Your task to perform on an android device: change text size in settings app Image 0: 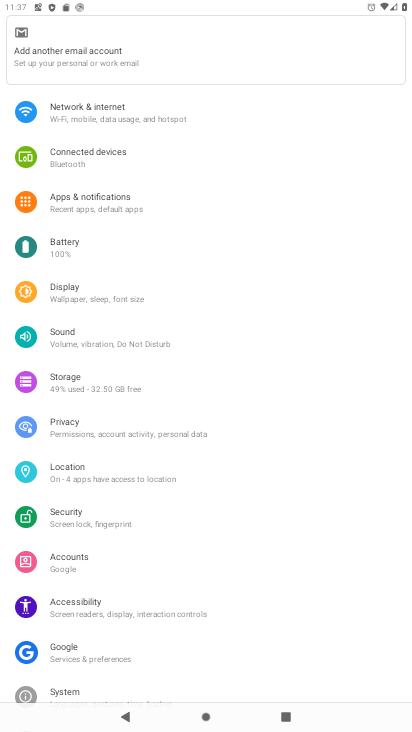
Step 0: press home button
Your task to perform on an android device: change text size in settings app Image 1: 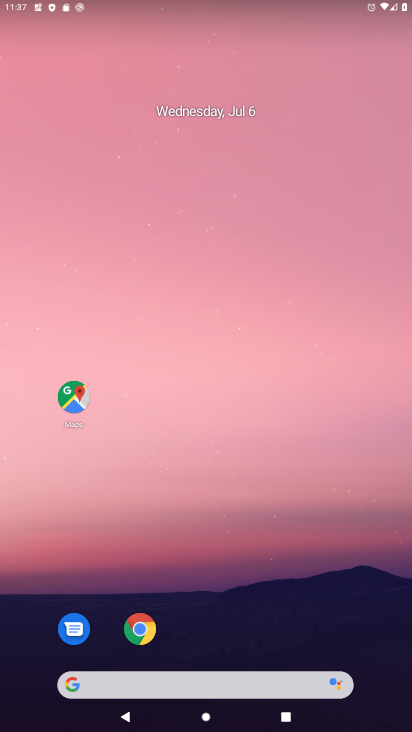
Step 1: drag from (224, 629) to (185, 93)
Your task to perform on an android device: change text size in settings app Image 2: 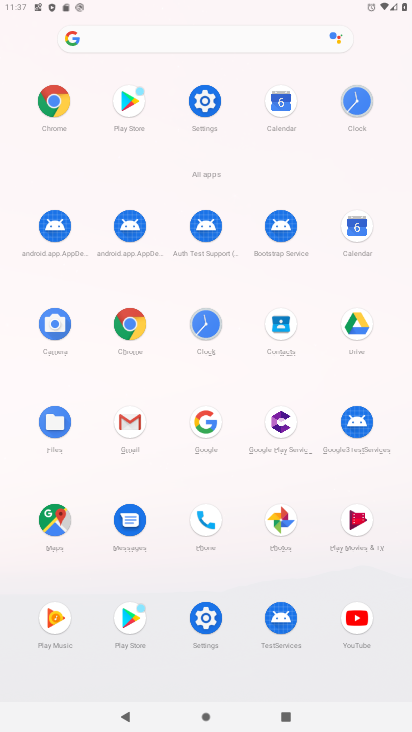
Step 2: click (204, 99)
Your task to perform on an android device: change text size in settings app Image 3: 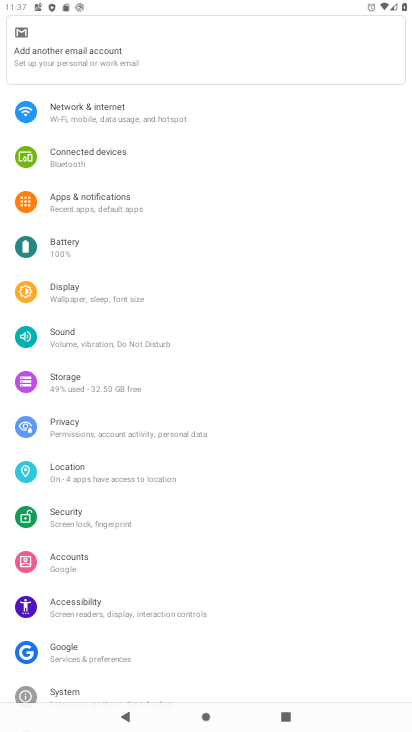
Step 3: click (61, 607)
Your task to perform on an android device: change text size in settings app Image 4: 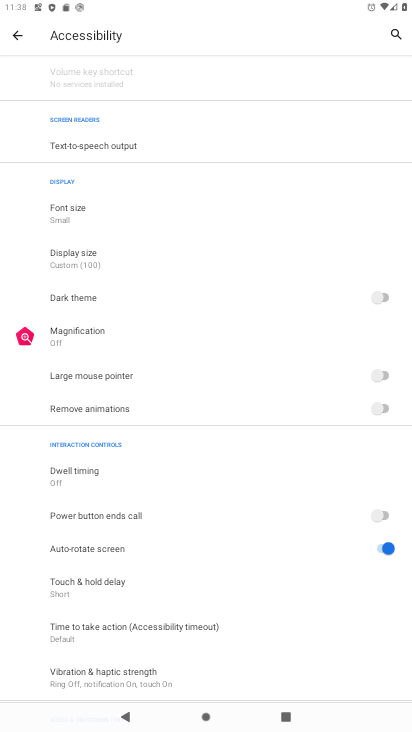
Step 4: click (98, 203)
Your task to perform on an android device: change text size in settings app Image 5: 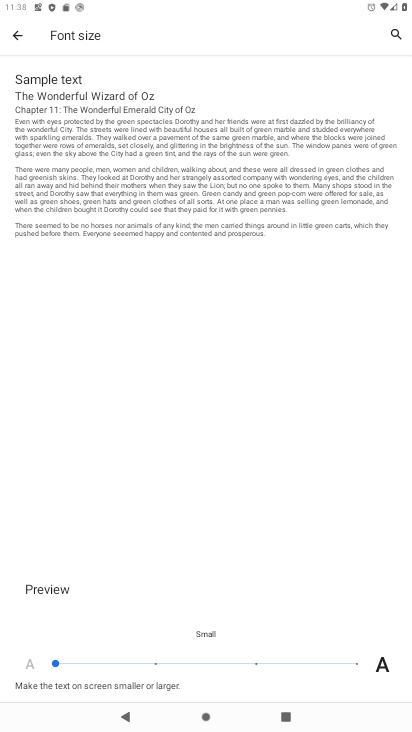
Step 5: click (154, 665)
Your task to perform on an android device: change text size in settings app Image 6: 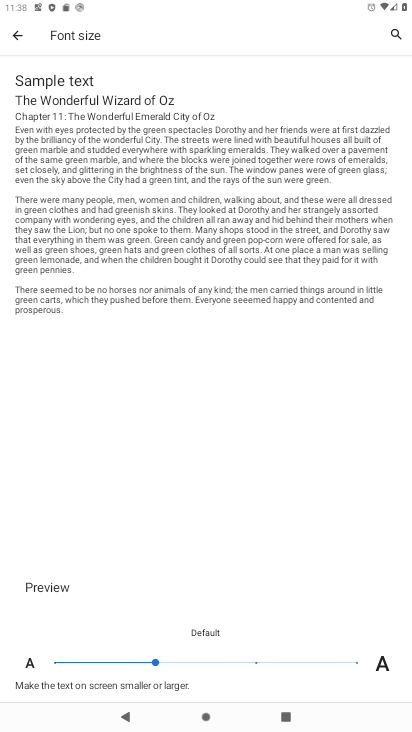
Step 6: task complete